Your task to perform on an android device: change the clock display to digital Image 0: 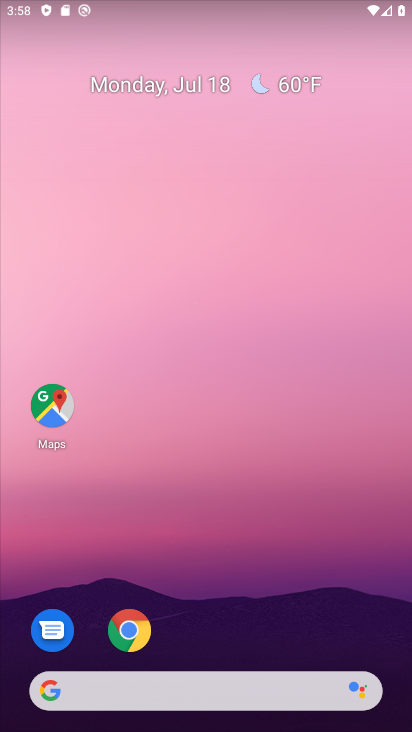
Step 0: drag from (273, 729) to (196, 157)
Your task to perform on an android device: change the clock display to digital Image 1: 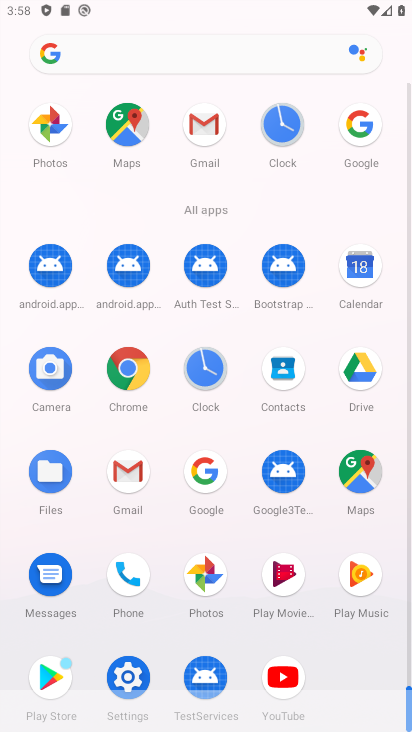
Step 1: click (287, 119)
Your task to perform on an android device: change the clock display to digital Image 2: 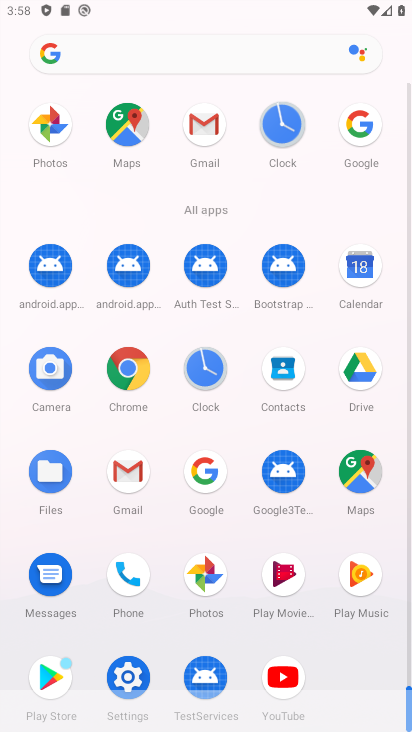
Step 2: click (288, 113)
Your task to perform on an android device: change the clock display to digital Image 3: 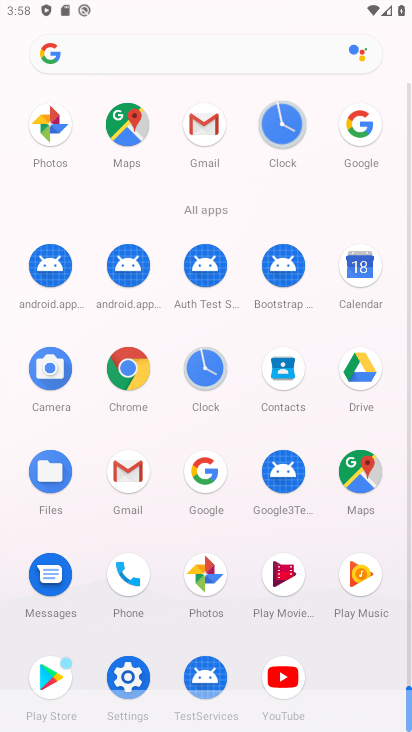
Step 3: click (288, 113)
Your task to perform on an android device: change the clock display to digital Image 4: 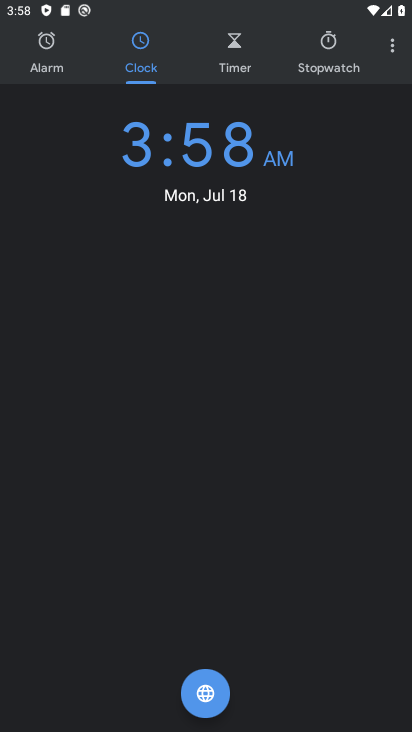
Step 4: click (395, 44)
Your task to perform on an android device: change the clock display to digital Image 5: 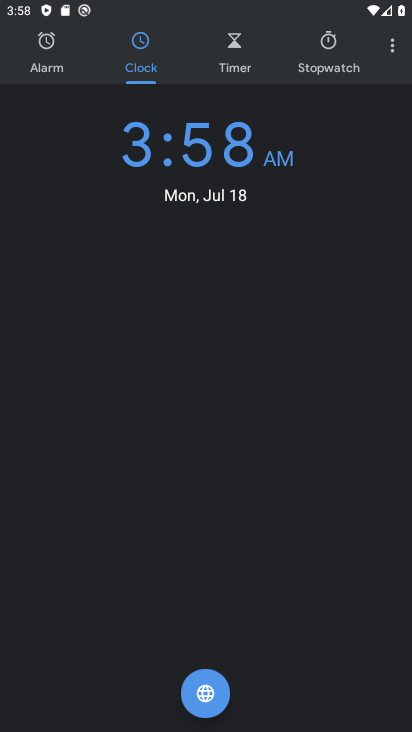
Step 5: click (385, 43)
Your task to perform on an android device: change the clock display to digital Image 6: 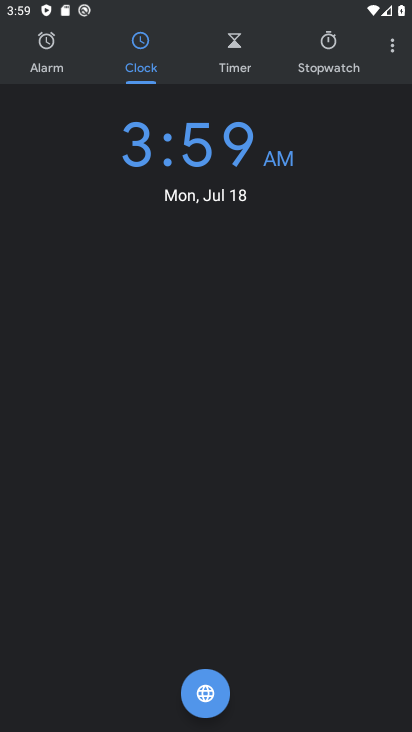
Step 6: click (391, 41)
Your task to perform on an android device: change the clock display to digital Image 7: 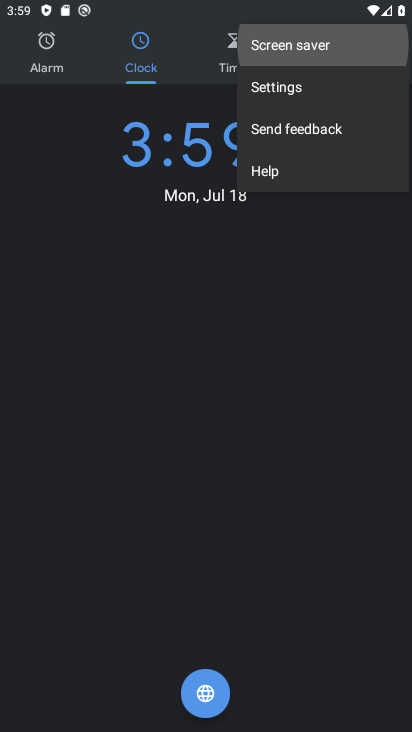
Step 7: click (392, 40)
Your task to perform on an android device: change the clock display to digital Image 8: 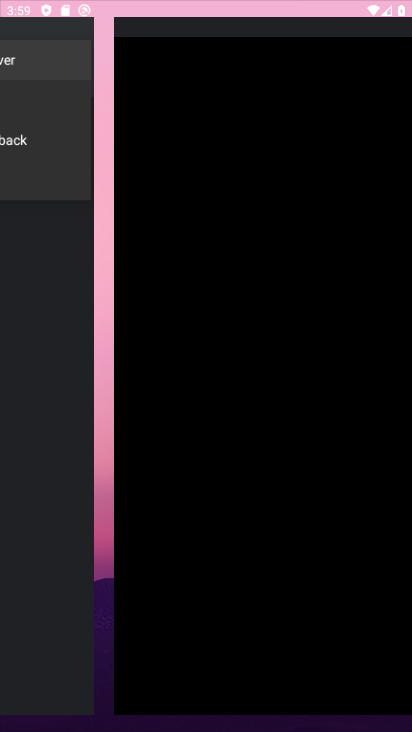
Step 8: click (392, 40)
Your task to perform on an android device: change the clock display to digital Image 9: 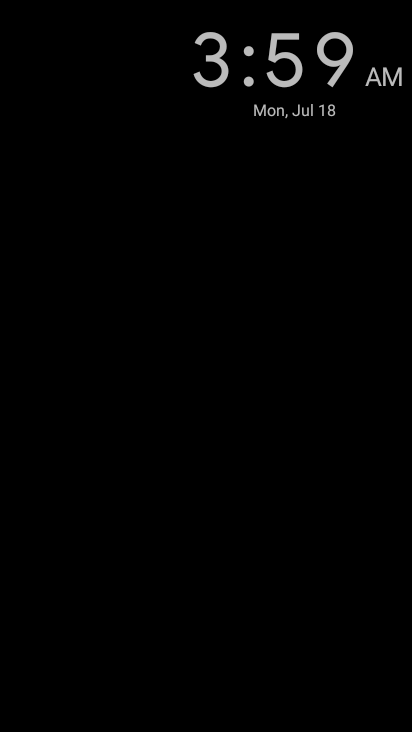
Step 9: press back button
Your task to perform on an android device: change the clock display to digital Image 10: 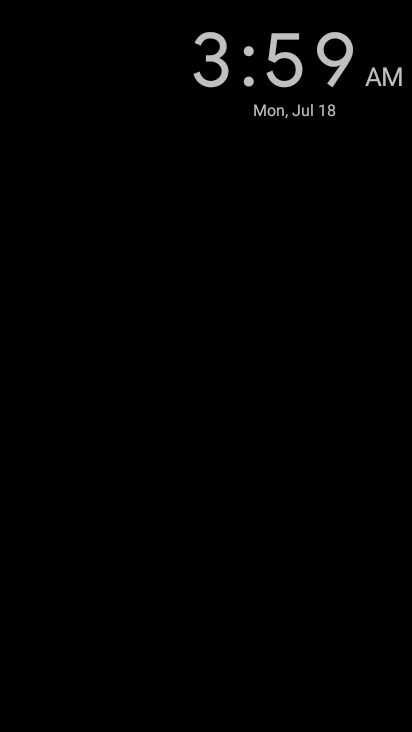
Step 10: press back button
Your task to perform on an android device: change the clock display to digital Image 11: 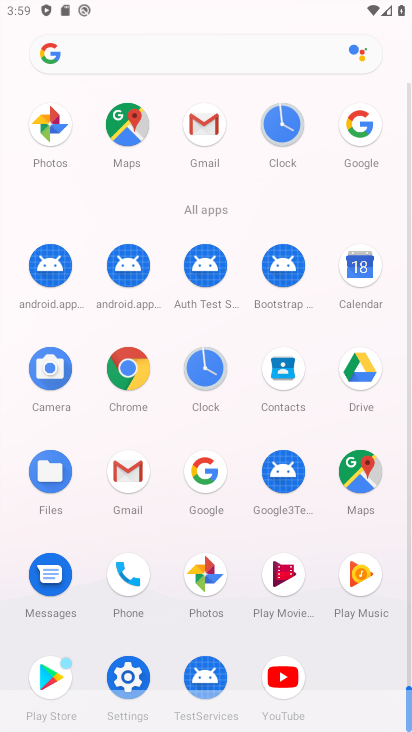
Step 11: click (196, 362)
Your task to perform on an android device: change the clock display to digital Image 12: 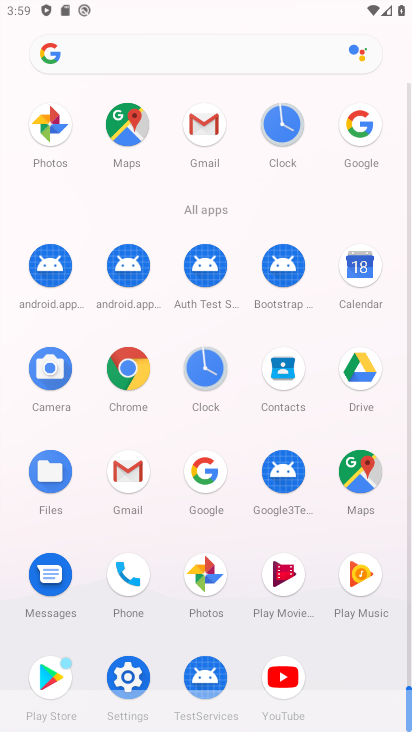
Step 12: click (197, 367)
Your task to perform on an android device: change the clock display to digital Image 13: 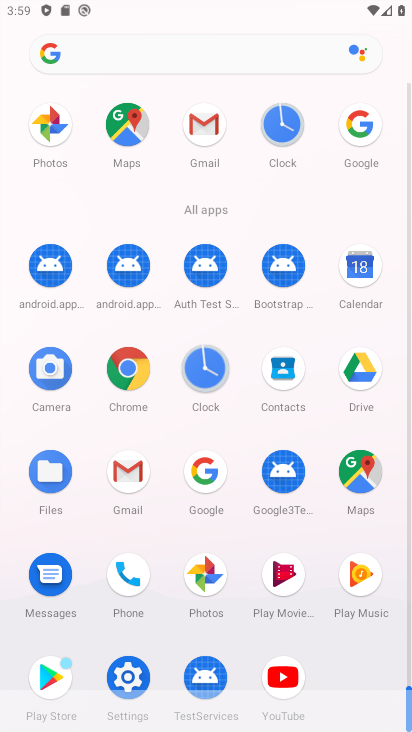
Step 13: click (197, 367)
Your task to perform on an android device: change the clock display to digital Image 14: 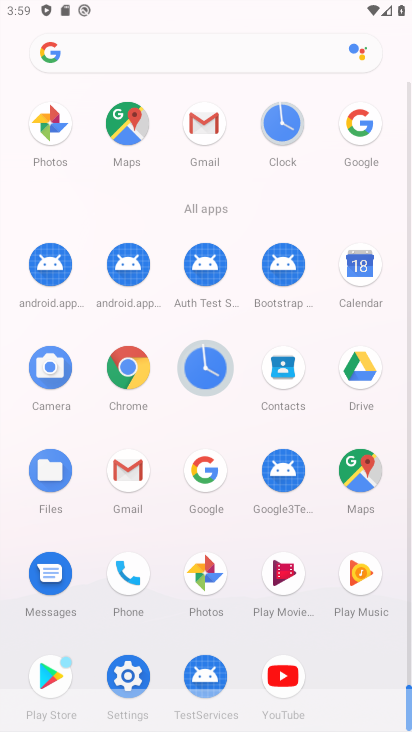
Step 14: click (197, 367)
Your task to perform on an android device: change the clock display to digital Image 15: 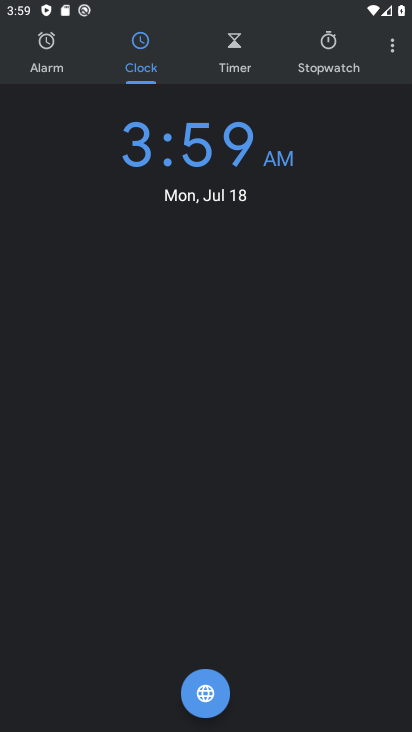
Step 15: click (188, 379)
Your task to perform on an android device: change the clock display to digital Image 16: 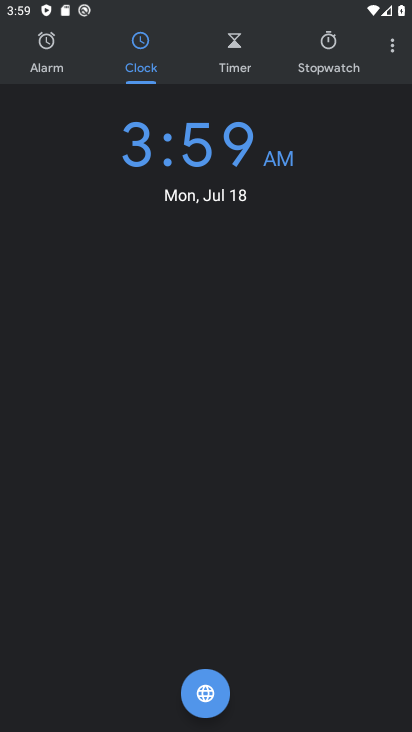
Step 16: click (389, 55)
Your task to perform on an android device: change the clock display to digital Image 17: 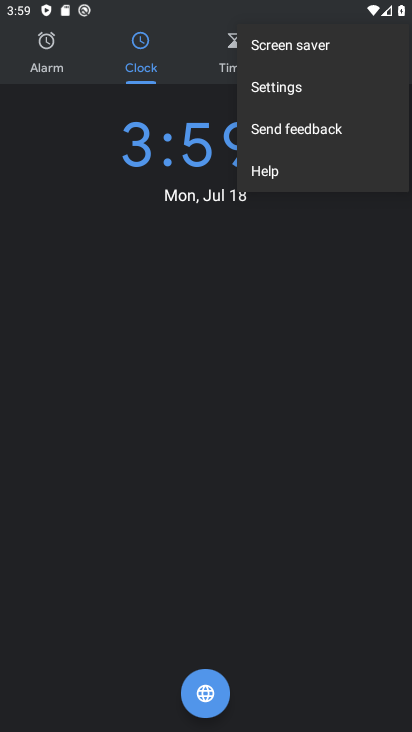
Step 17: click (269, 85)
Your task to perform on an android device: change the clock display to digital Image 18: 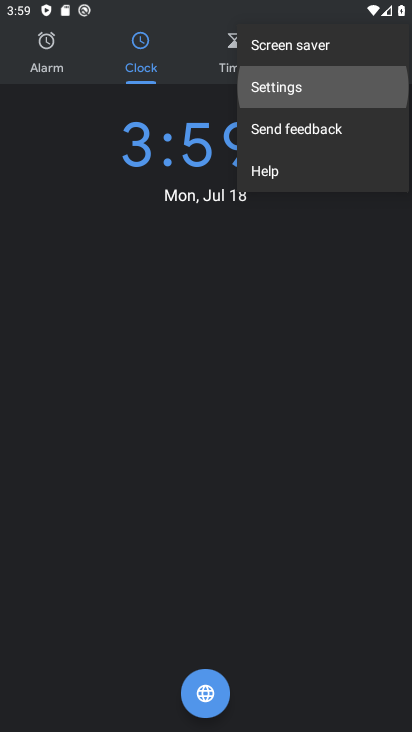
Step 18: click (269, 85)
Your task to perform on an android device: change the clock display to digital Image 19: 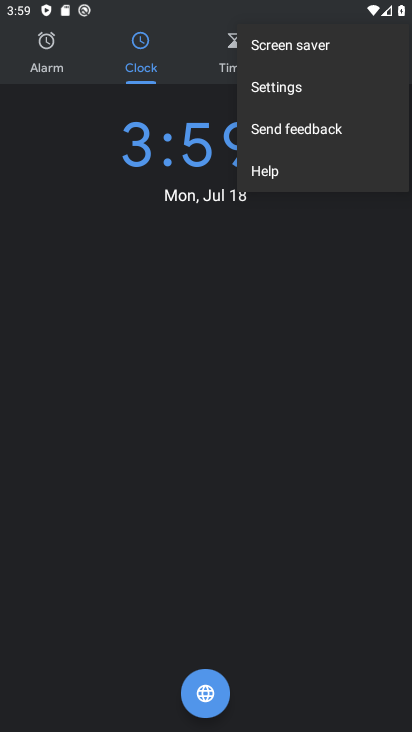
Step 19: click (270, 84)
Your task to perform on an android device: change the clock display to digital Image 20: 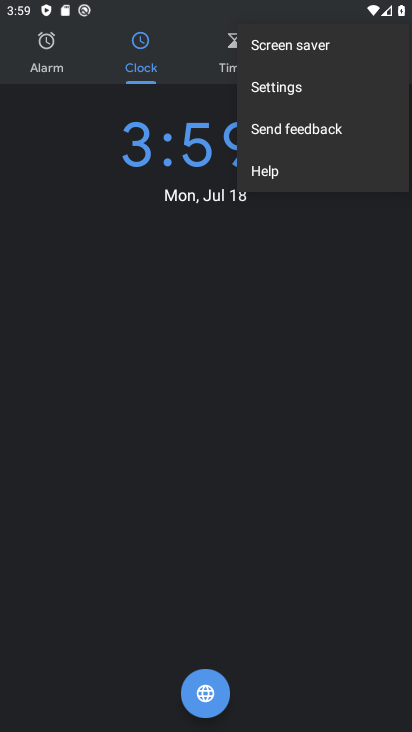
Step 20: click (273, 86)
Your task to perform on an android device: change the clock display to digital Image 21: 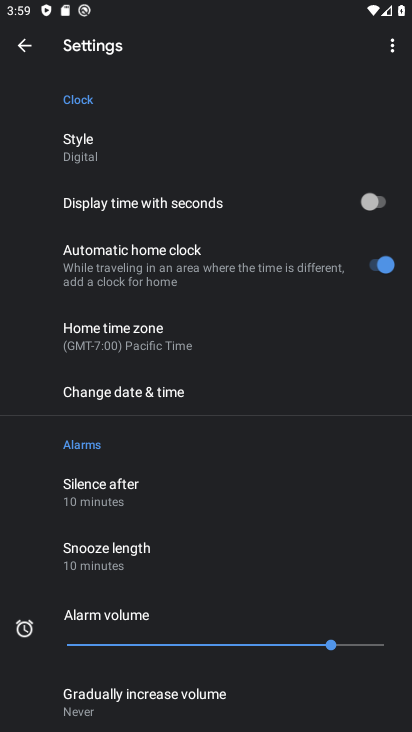
Step 21: task complete